Your task to perform on an android device: What's the weather? Image 0: 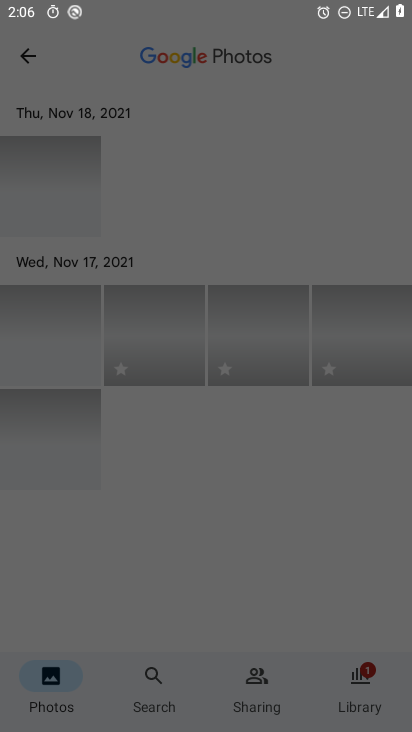
Step 0: drag from (189, 665) to (167, 310)
Your task to perform on an android device: What's the weather? Image 1: 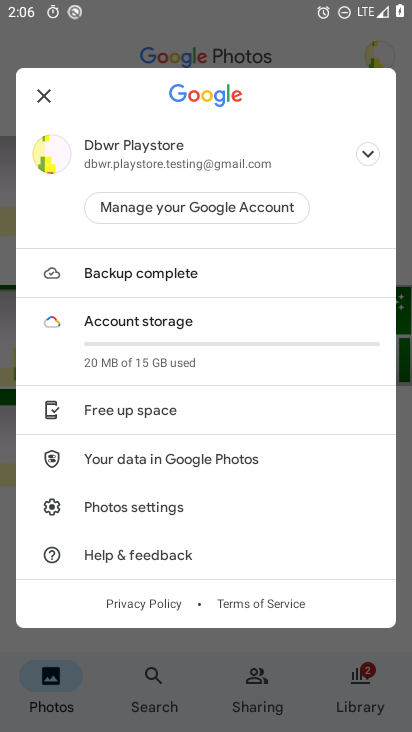
Step 1: press home button
Your task to perform on an android device: What's the weather? Image 2: 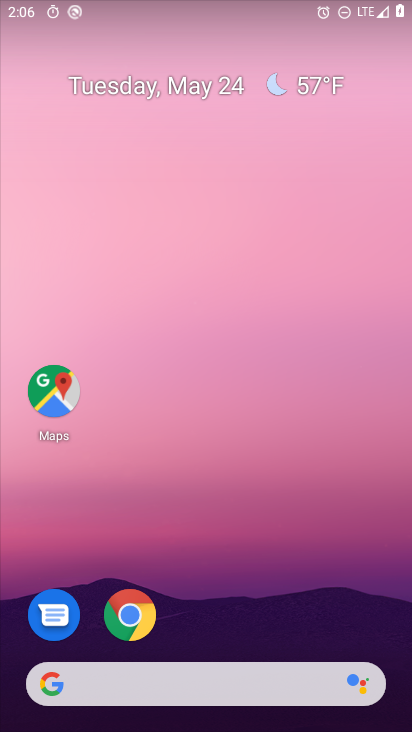
Step 2: drag from (113, 663) to (161, 230)
Your task to perform on an android device: What's the weather? Image 3: 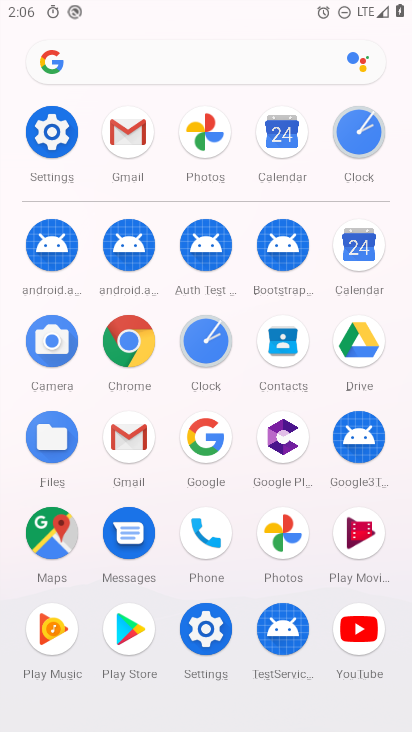
Step 3: click (200, 435)
Your task to perform on an android device: What's the weather? Image 4: 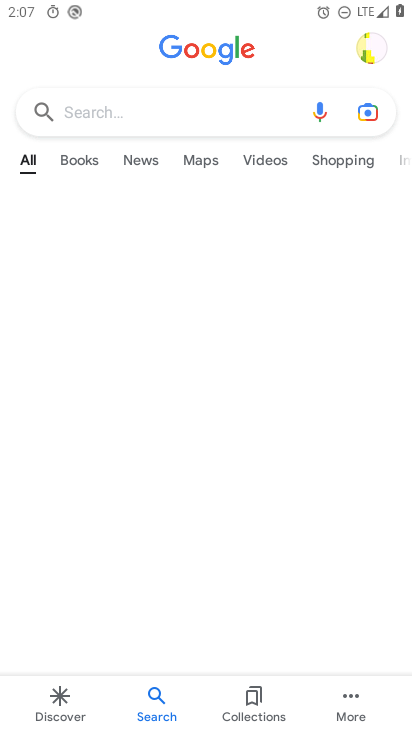
Step 4: click (169, 117)
Your task to perform on an android device: What's the weather? Image 5: 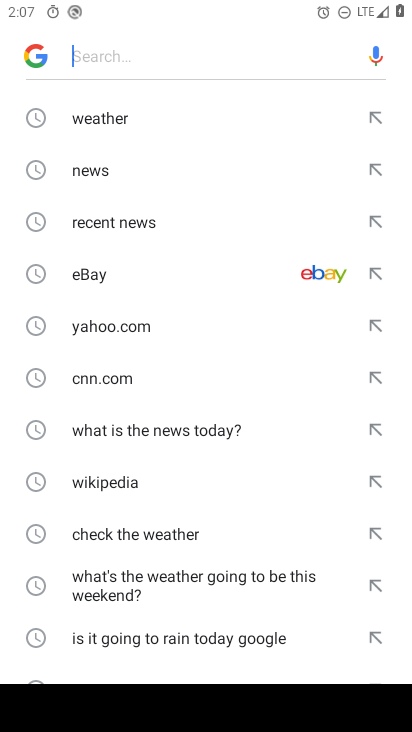
Step 5: click (120, 117)
Your task to perform on an android device: What's the weather? Image 6: 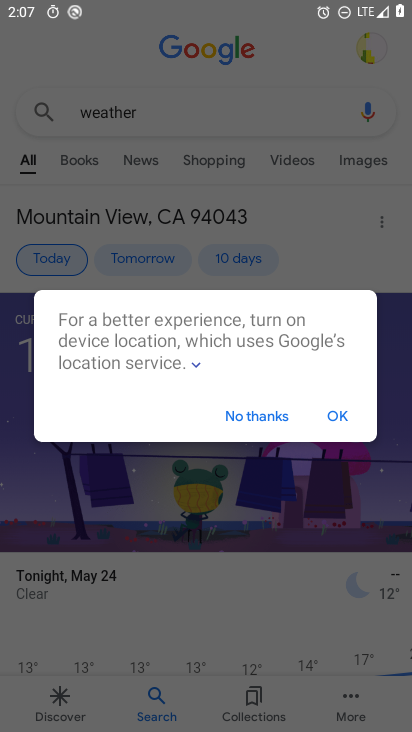
Step 6: click (339, 419)
Your task to perform on an android device: What's the weather? Image 7: 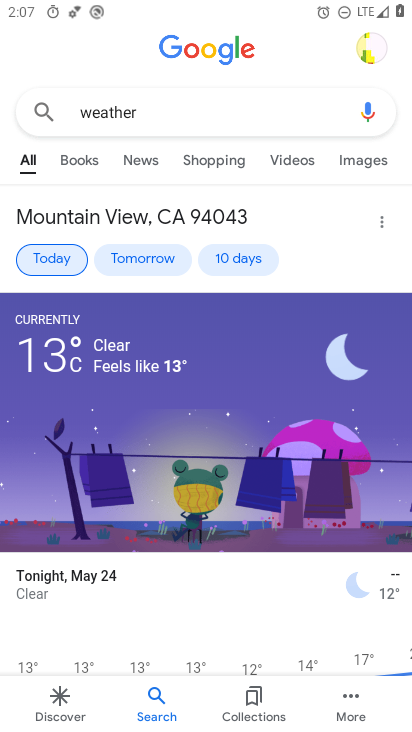
Step 7: task complete